Your task to perform on an android device: add a contact in the contacts app Image 0: 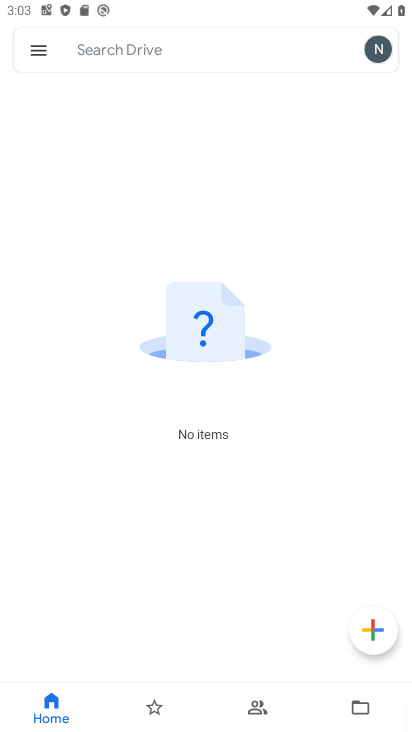
Step 0: press home button
Your task to perform on an android device: add a contact in the contacts app Image 1: 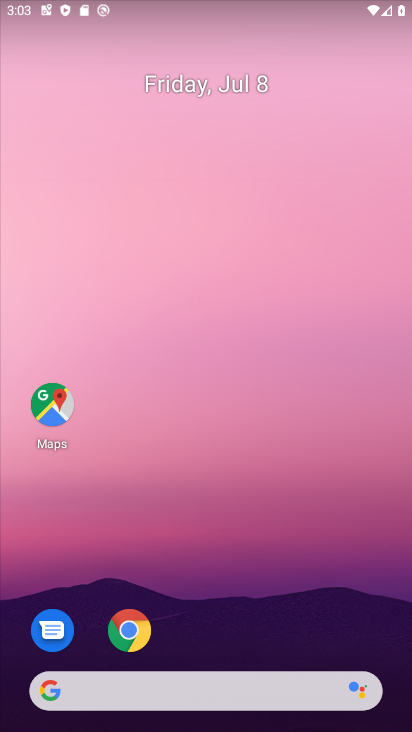
Step 1: click (139, 614)
Your task to perform on an android device: add a contact in the contacts app Image 2: 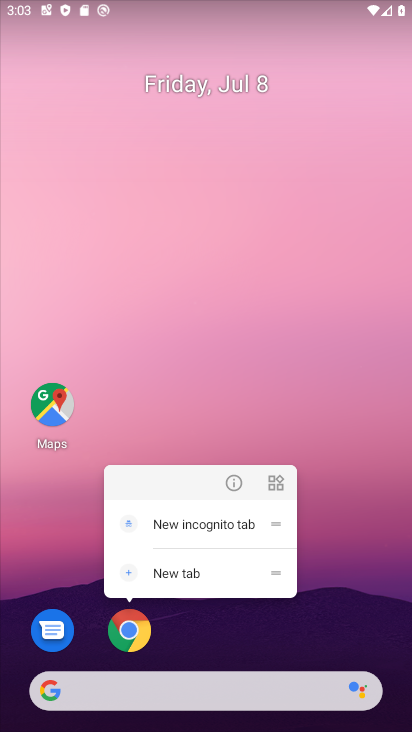
Step 2: click (398, 568)
Your task to perform on an android device: add a contact in the contacts app Image 3: 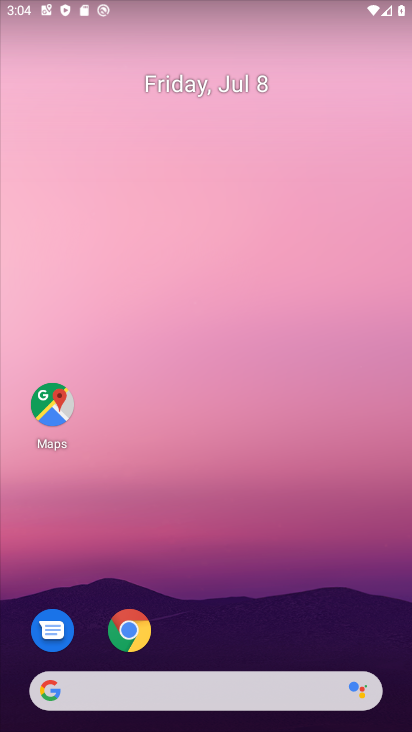
Step 3: drag from (260, 618) to (291, 29)
Your task to perform on an android device: add a contact in the contacts app Image 4: 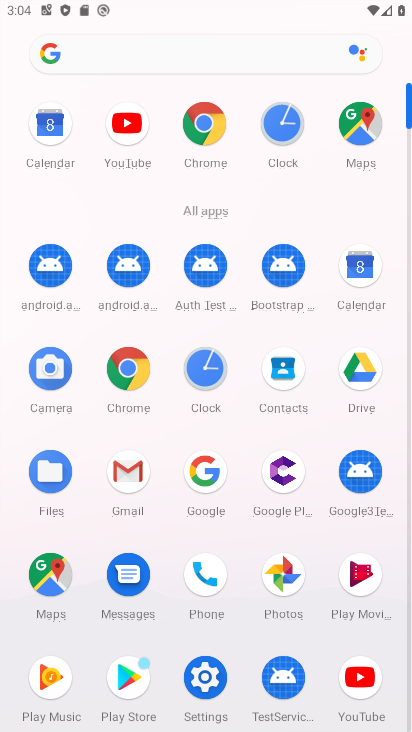
Step 4: click (200, 575)
Your task to perform on an android device: add a contact in the contacts app Image 5: 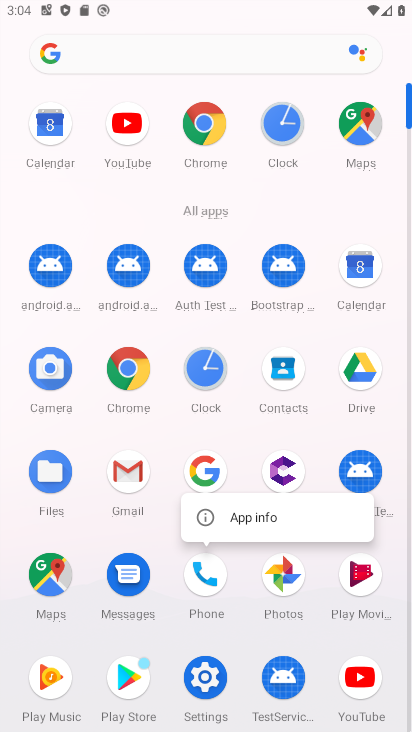
Step 5: click (156, 527)
Your task to perform on an android device: add a contact in the contacts app Image 6: 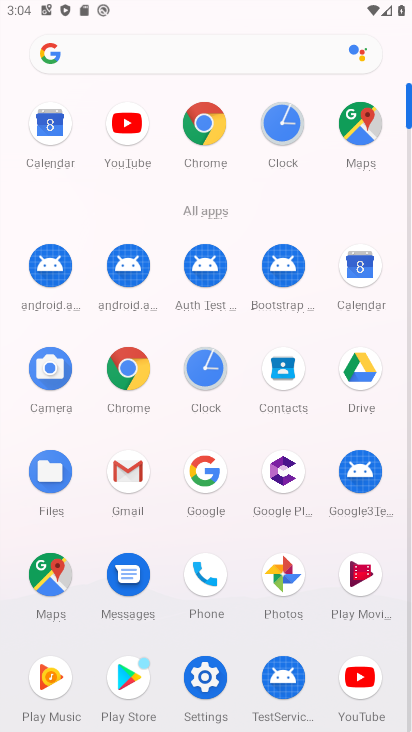
Step 6: click (288, 380)
Your task to perform on an android device: add a contact in the contacts app Image 7: 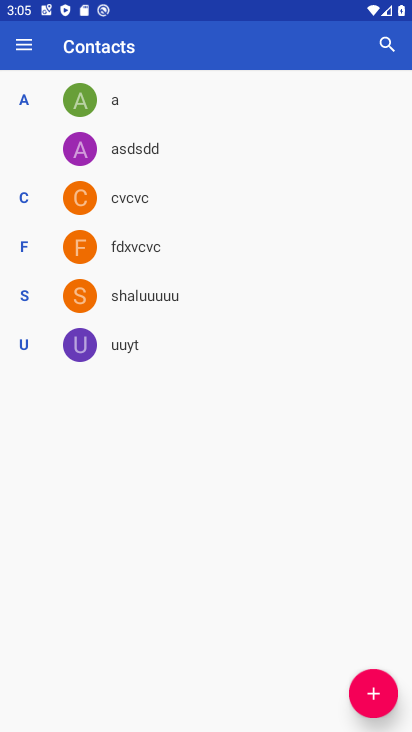
Step 7: task complete